Your task to perform on an android device: allow cookies in the chrome app Image 0: 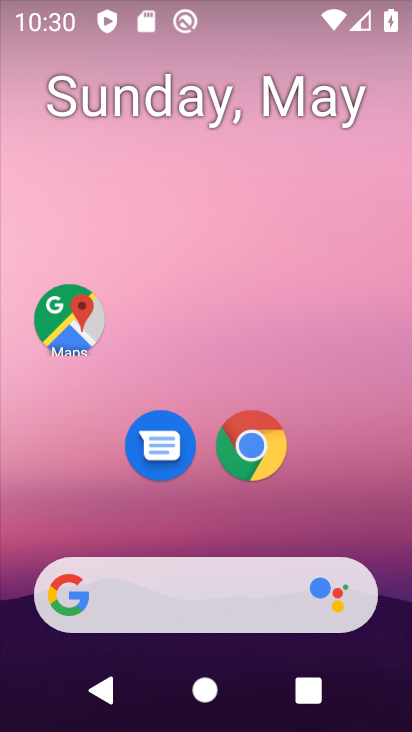
Step 0: drag from (322, 505) to (225, 110)
Your task to perform on an android device: allow cookies in the chrome app Image 1: 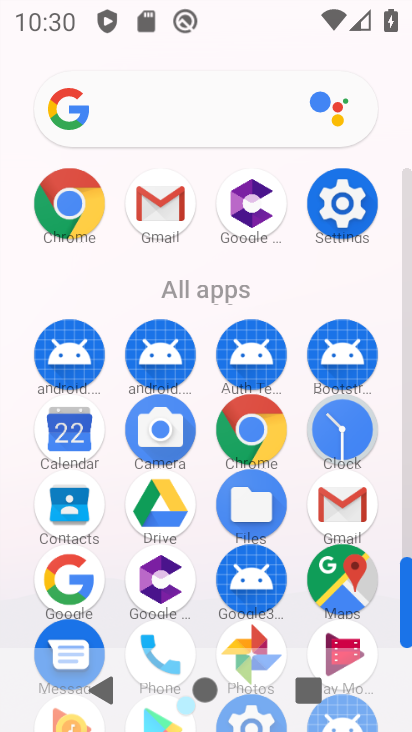
Step 1: click (254, 427)
Your task to perform on an android device: allow cookies in the chrome app Image 2: 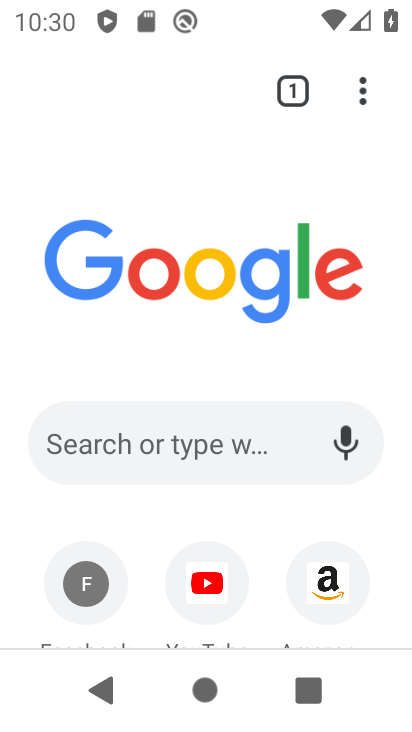
Step 2: click (367, 97)
Your task to perform on an android device: allow cookies in the chrome app Image 3: 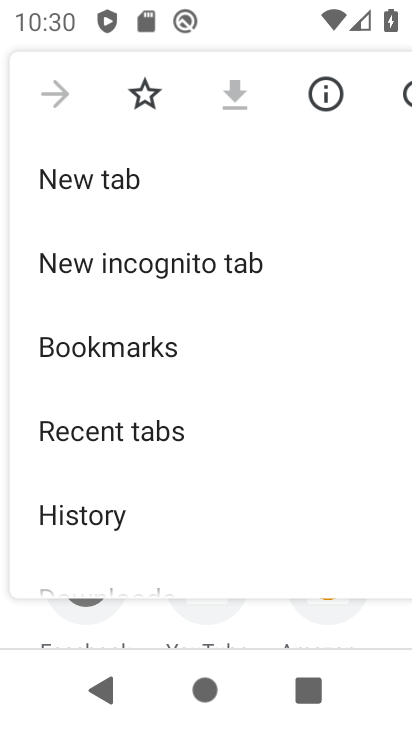
Step 3: drag from (238, 514) to (184, 77)
Your task to perform on an android device: allow cookies in the chrome app Image 4: 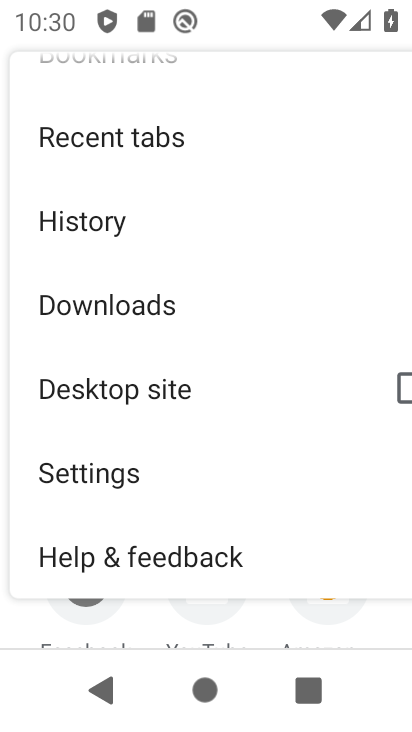
Step 4: click (175, 496)
Your task to perform on an android device: allow cookies in the chrome app Image 5: 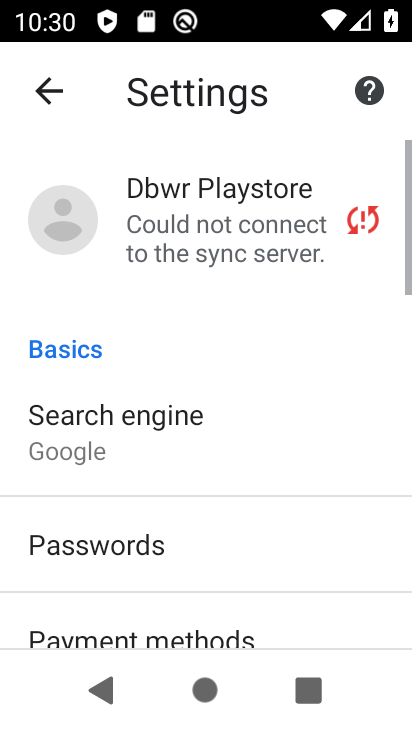
Step 5: drag from (247, 527) to (189, 40)
Your task to perform on an android device: allow cookies in the chrome app Image 6: 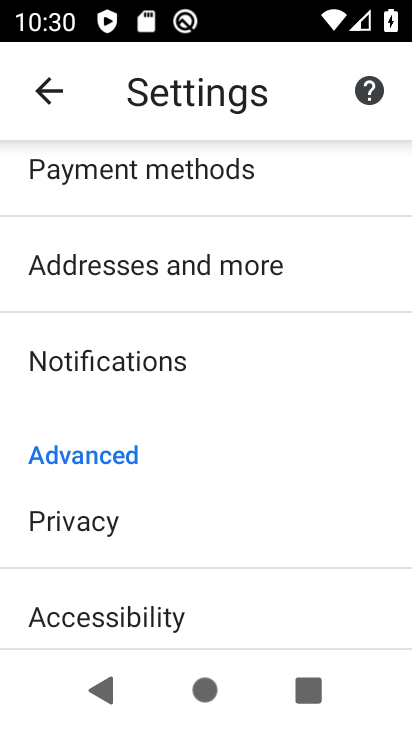
Step 6: drag from (211, 586) to (211, 186)
Your task to perform on an android device: allow cookies in the chrome app Image 7: 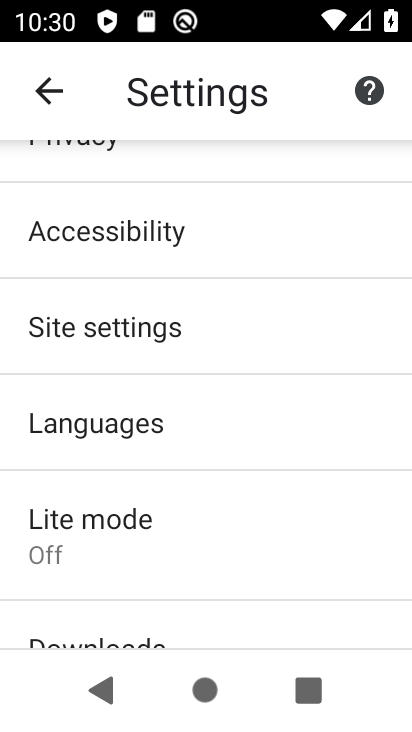
Step 7: click (164, 343)
Your task to perform on an android device: allow cookies in the chrome app Image 8: 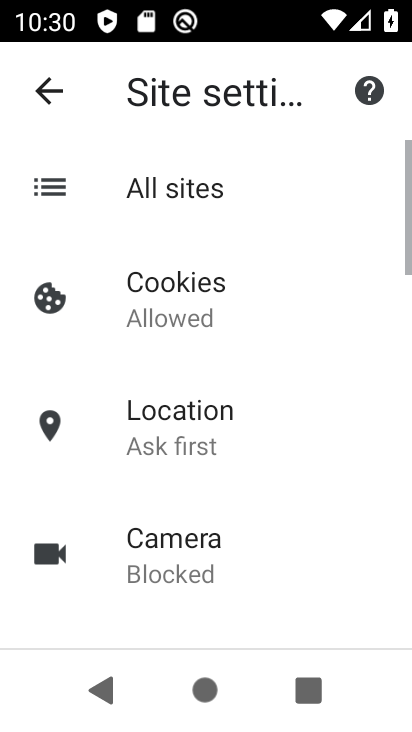
Step 8: click (188, 301)
Your task to perform on an android device: allow cookies in the chrome app Image 9: 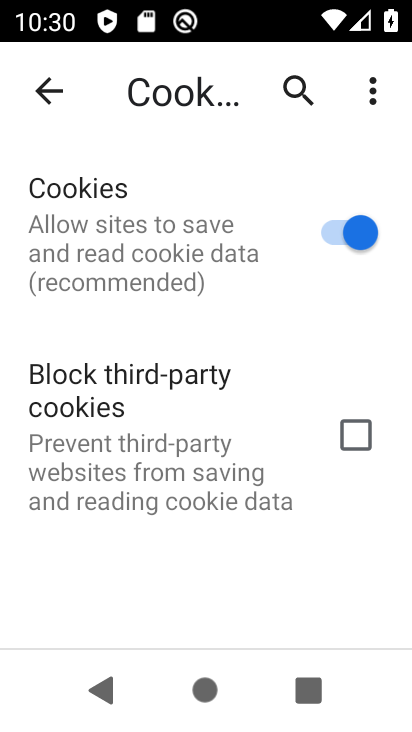
Step 9: click (355, 438)
Your task to perform on an android device: allow cookies in the chrome app Image 10: 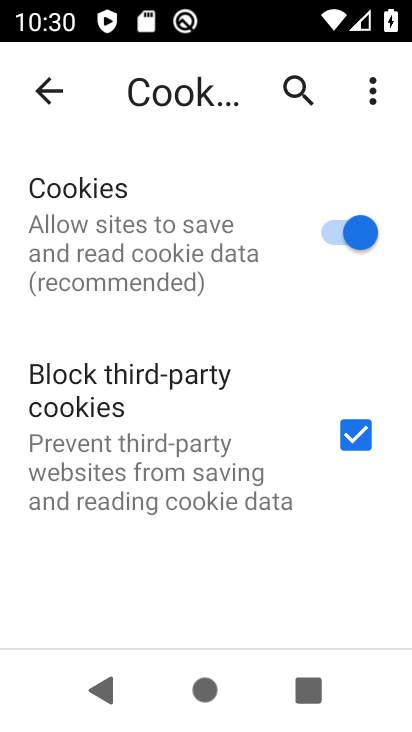
Step 10: task complete